Your task to perform on an android device: uninstall "Messages" Image 0: 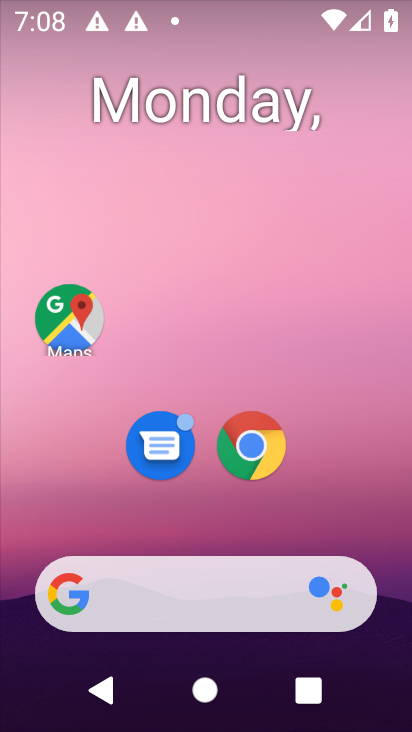
Step 0: drag from (397, 605) to (256, 124)
Your task to perform on an android device: uninstall "Messages" Image 1: 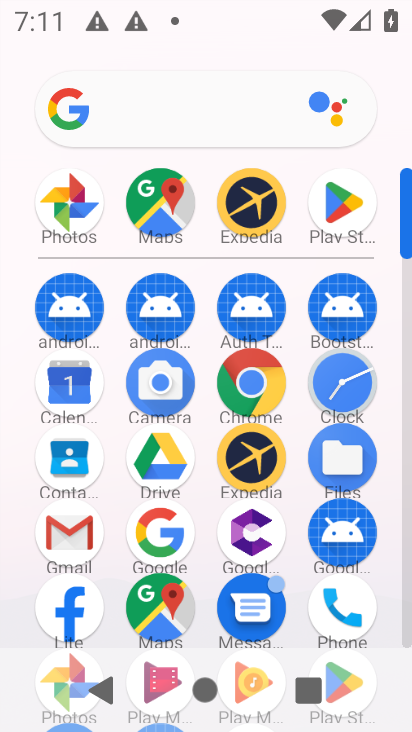
Step 1: click (331, 201)
Your task to perform on an android device: uninstall "Messages" Image 2: 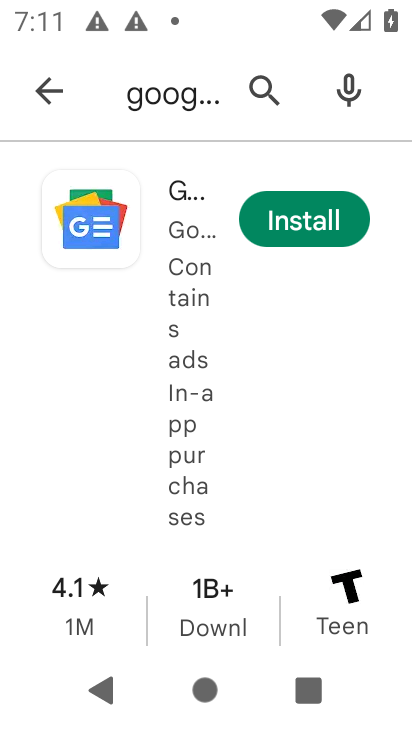
Step 2: press back button
Your task to perform on an android device: uninstall "Messages" Image 3: 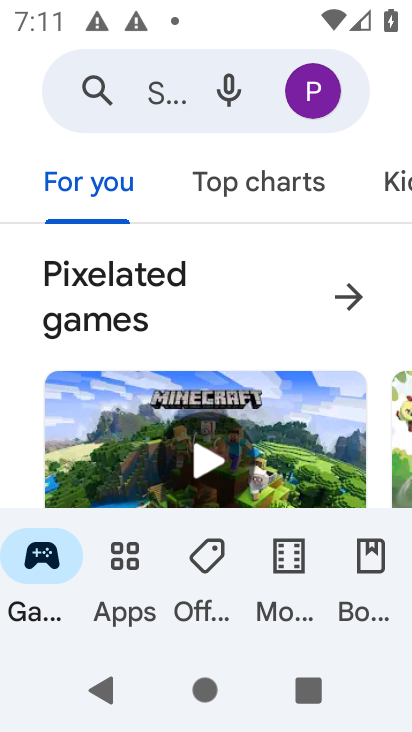
Step 3: click (139, 95)
Your task to perform on an android device: uninstall "Messages" Image 4: 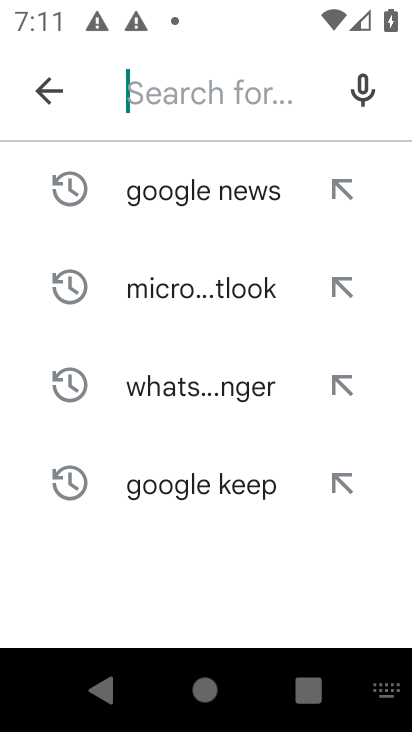
Step 4: type "Messages"
Your task to perform on an android device: uninstall "Messages" Image 5: 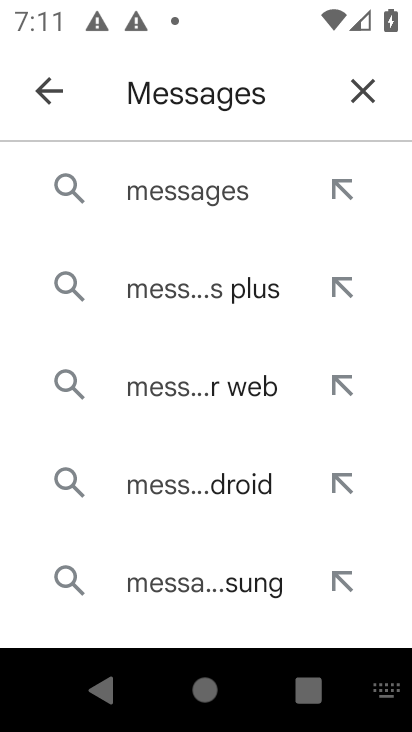
Step 5: click (175, 188)
Your task to perform on an android device: uninstall "Messages" Image 6: 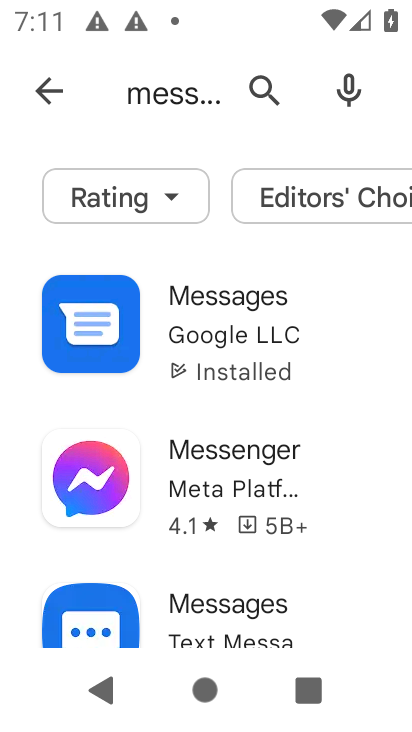
Step 6: click (184, 309)
Your task to perform on an android device: uninstall "Messages" Image 7: 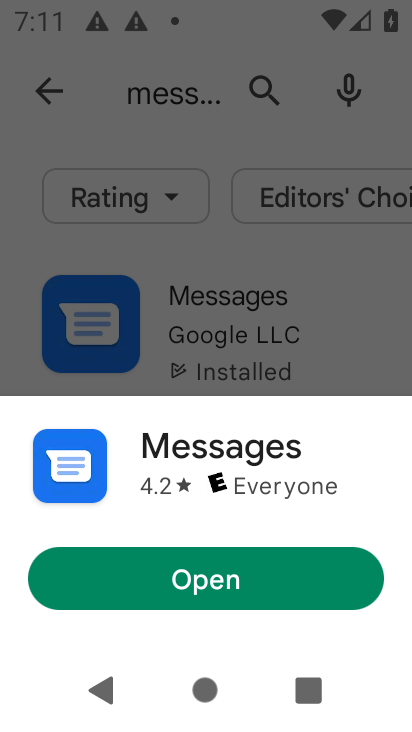
Step 7: task complete